Your task to perform on an android device: Set the phone to "Do not disturb". Image 0: 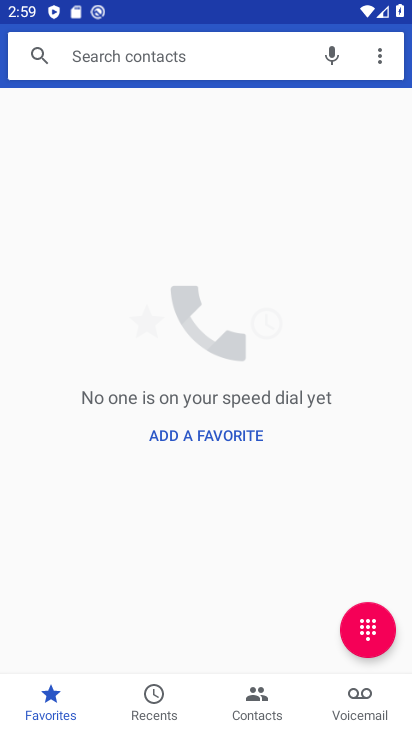
Step 0: drag from (155, 8) to (249, 473)
Your task to perform on an android device: Set the phone to "Do not disturb". Image 1: 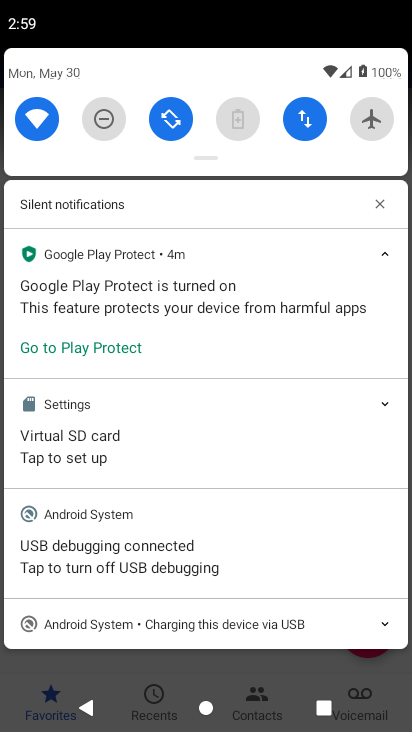
Step 1: click (114, 135)
Your task to perform on an android device: Set the phone to "Do not disturb". Image 2: 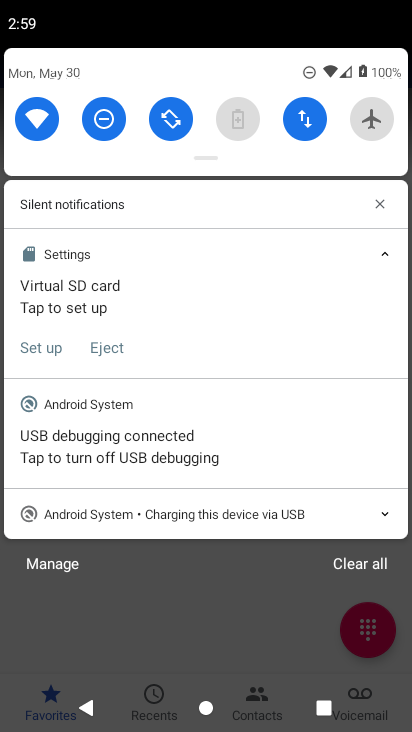
Step 2: task complete